Your task to perform on an android device: turn on airplane mode Image 0: 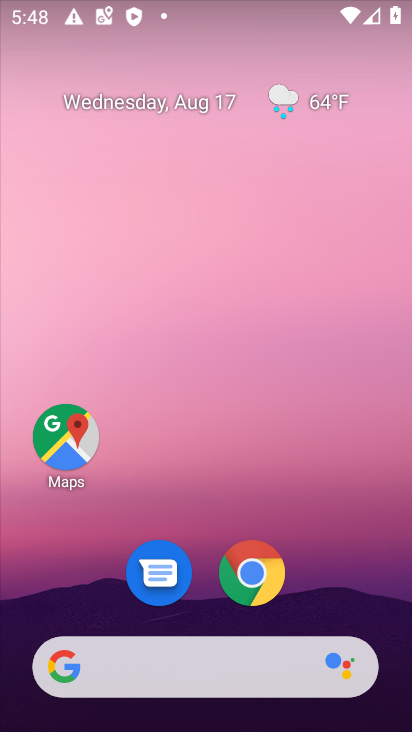
Step 0: drag from (347, 531) to (276, 158)
Your task to perform on an android device: turn on airplane mode Image 1: 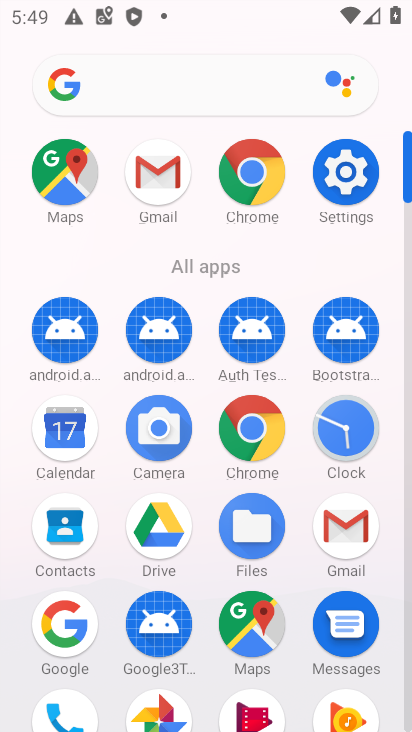
Step 1: click (333, 175)
Your task to perform on an android device: turn on airplane mode Image 2: 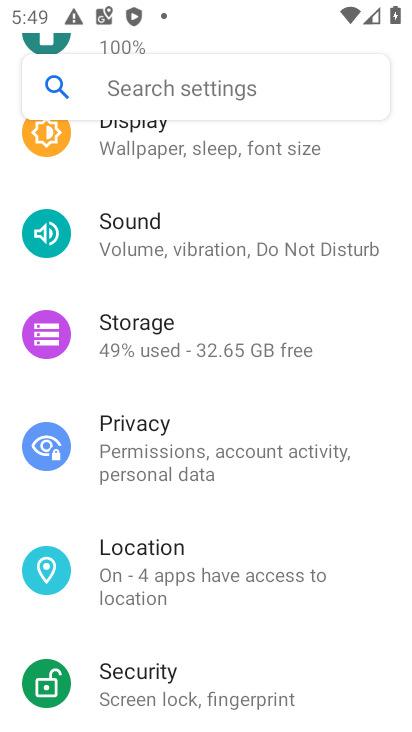
Step 2: drag from (296, 202) to (394, 588)
Your task to perform on an android device: turn on airplane mode Image 3: 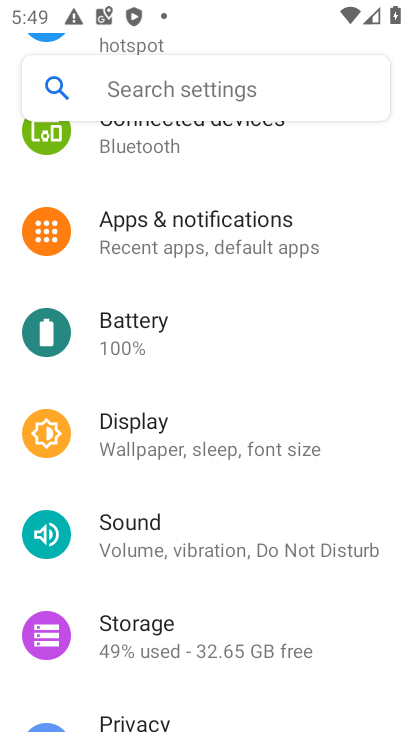
Step 3: drag from (185, 367) to (289, 727)
Your task to perform on an android device: turn on airplane mode Image 4: 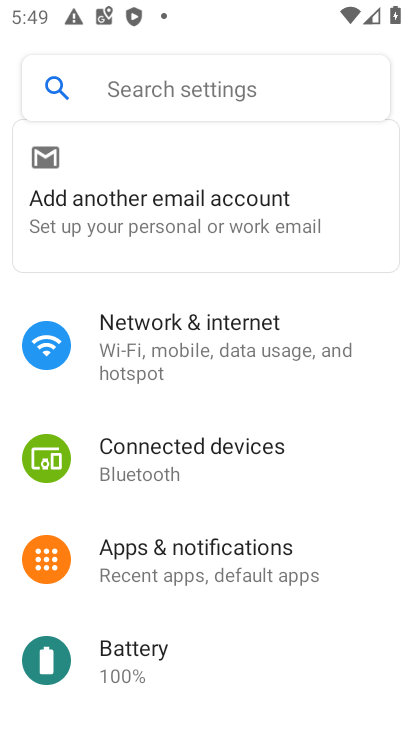
Step 4: click (249, 345)
Your task to perform on an android device: turn on airplane mode Image 5: 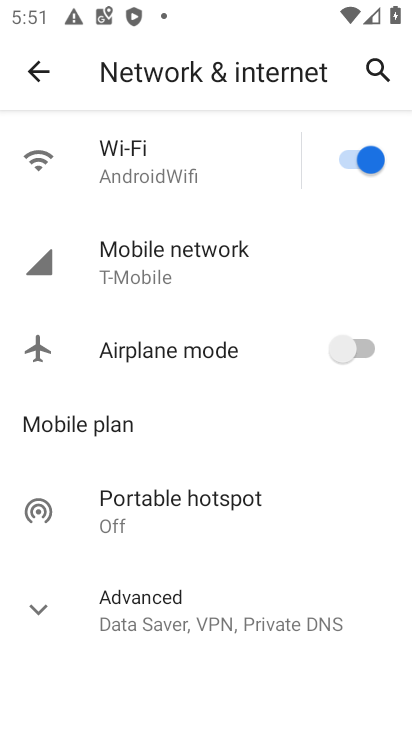
Step 5: click (353, 356)
Your task to perform on an android device: turn on airplane mode Image 6: 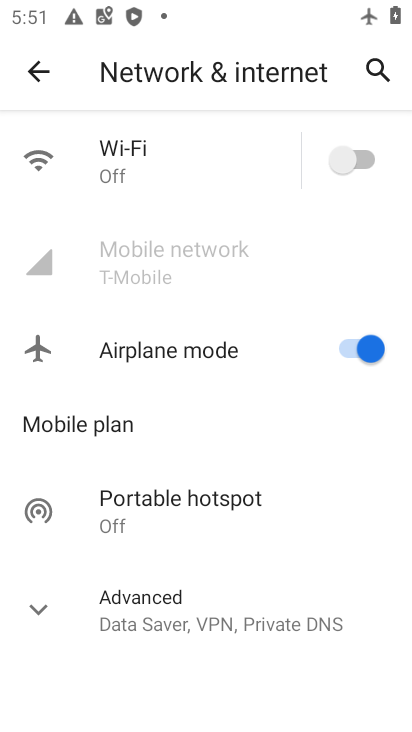
Step 6: task complete